Your task to perform on an android device: Open Google Chrome and open the bookmarks view Image 0: 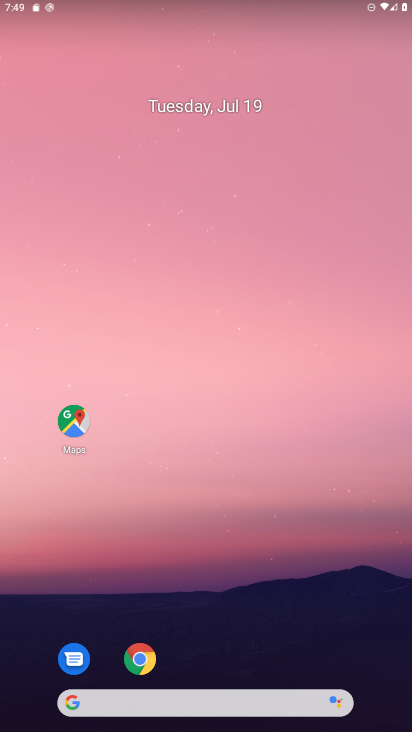
Step 0: drag from (157, 643) to (175, 90)
Your task to perform on an android device: Open Google Chrome and open the bookmarks view Image 1: 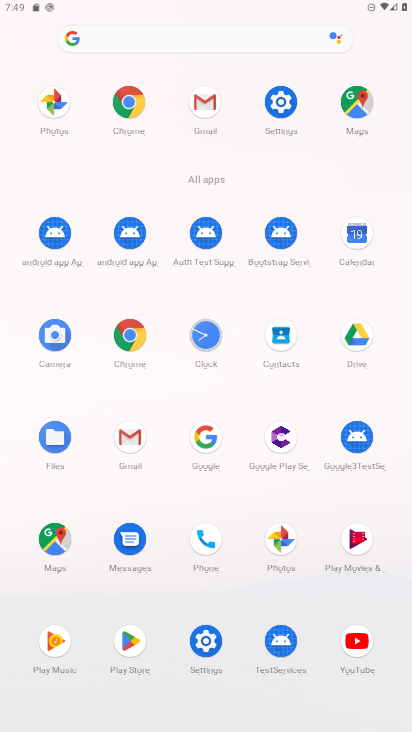
Step 1: click (127, 100)
Your task to perform on an android device: Open Google Chrome and open the bookmarks view Image 2: 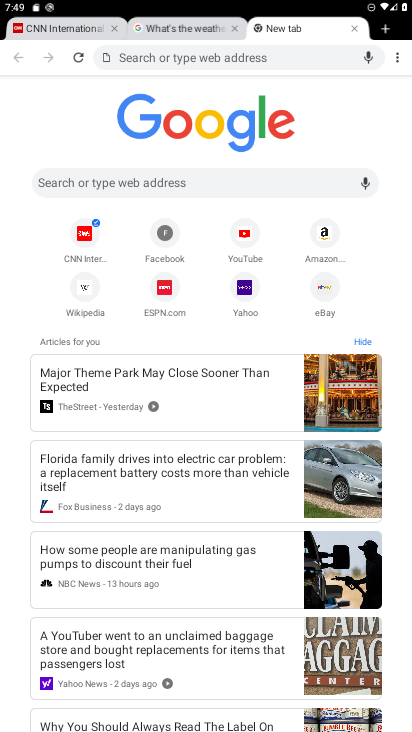
Step 2: click (408, 55)
Your task to perform on an android device: Open Google Chrome and open the bookmarks view Image 3: 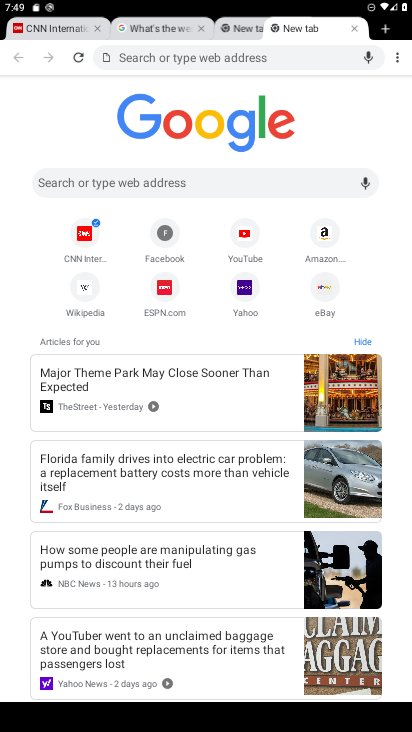
Step 3: click (408, 55)
Your task to perform on an android device: Open Google Chrome and open the bookmarks view Image 4: 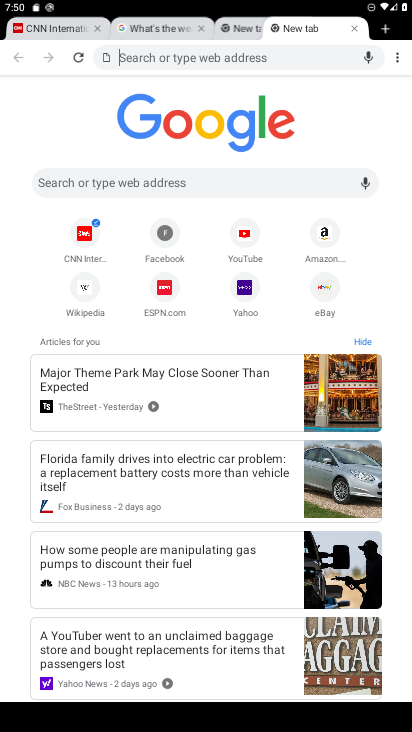
Step 4: click (409, 48)
Your task to perform on an android device: Open Google Chrome and open the bookmarks view Image 5: 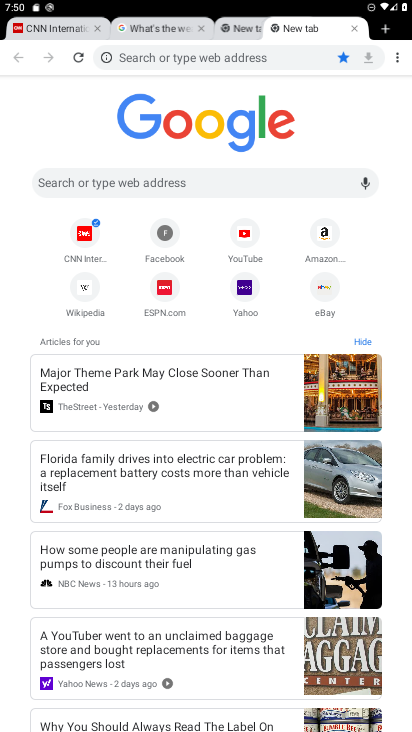
Step 5: click (405, 53)
Your task to perform on an android device: Open Google Chrome and open the bookmarks view Image 6: 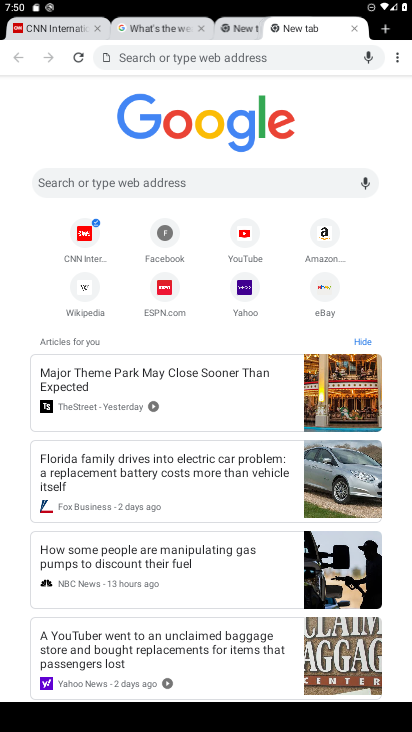
Step 6: click (392, 51)
Your task to perform on an android device: Open Google Chrome and open the bookmarks view Image 7: 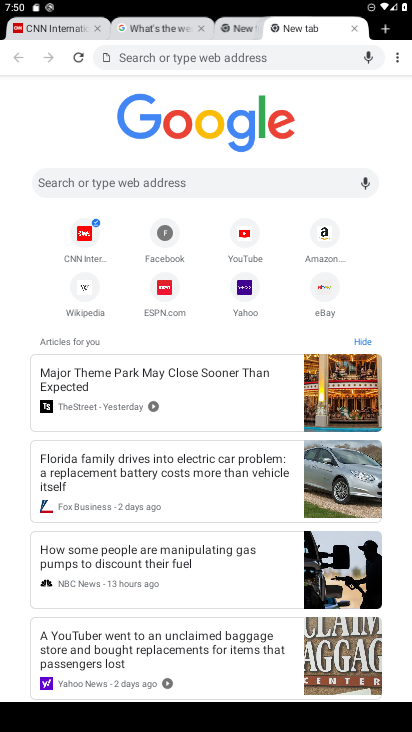
Step 7: click (397, 61)
Your task to perform on an android device: Open Google Chrome and open the bookmarks view Image 8: 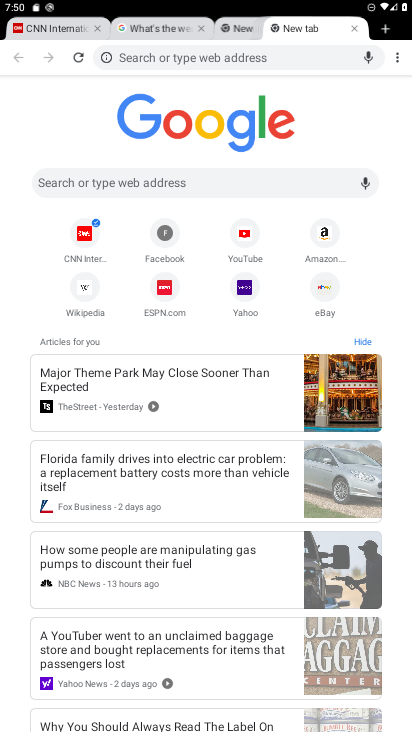
Step 8: click (397, 61)
Your task to perform on an android device: Open Google Chrome and open the bookmarks view Image 9: 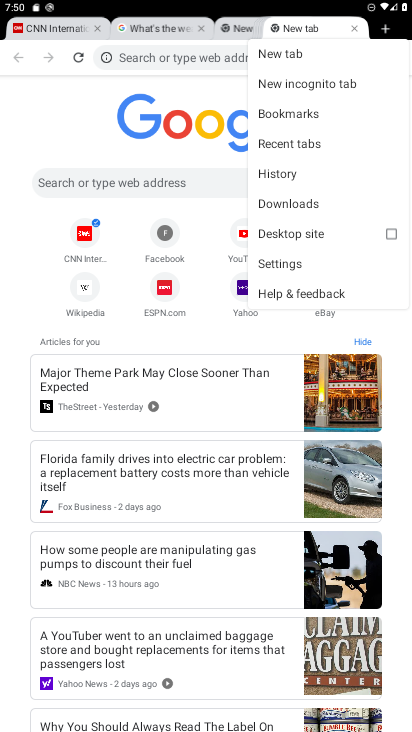
Step 9: click (319, 109)
Your task to perform on an android device: Open Google Chrome and open the bookmarks view Image 10: 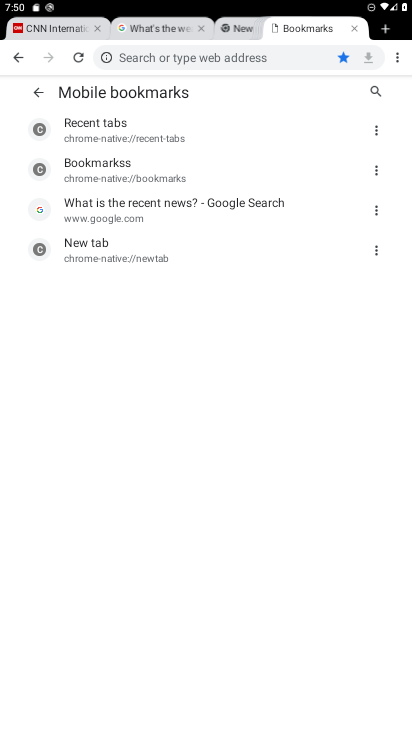
Step 10: task complete